Your task to perform on an android device: toggle javascript in the chrome app Image 0: 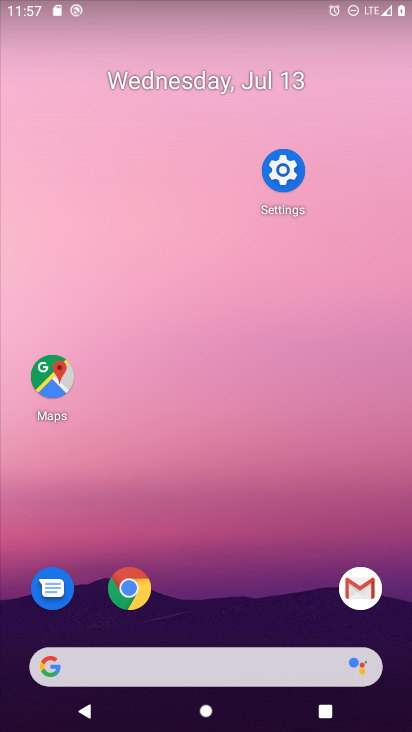
Step 0: drag from (229, 618) to (181, 140)
Your task to perform on an android device: toggle javascript in the chrome app Image 1: 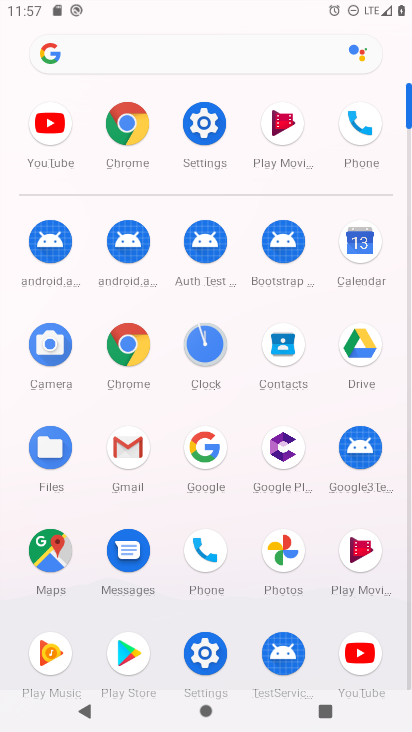
Step 1: click (130, 343)
Your task to perform on an android device: toggle javascript in the chrome app Image 2: 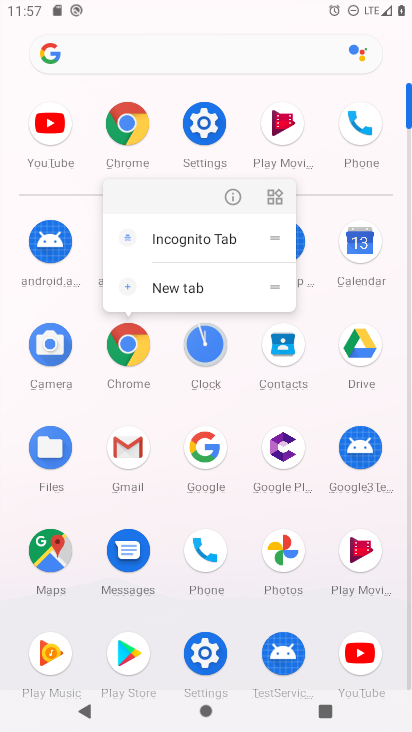
Step 2: click (123, 354)
Your task to perform on an android device: toggle javascript in the chrome app Image 3: 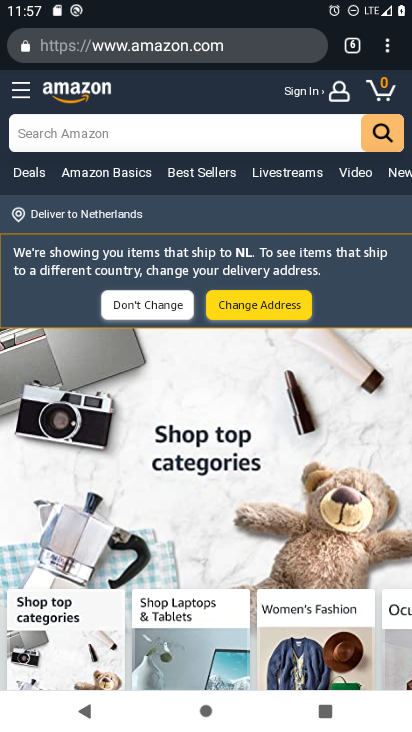
Step 3: click (379, 57)
Your task to perform on an android device: toggle javascript in the chrome app Image 4: 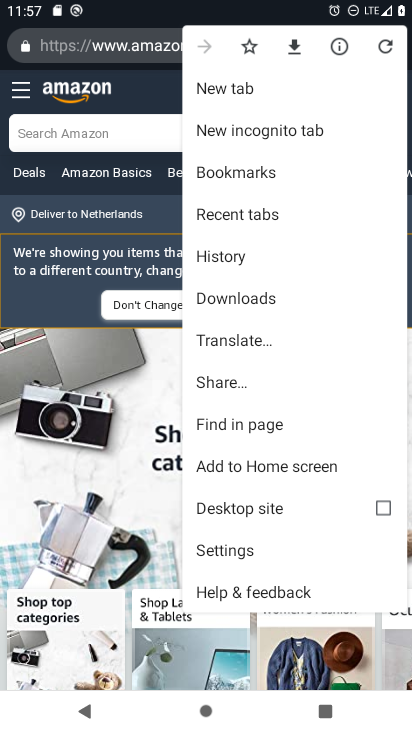
Step 4: click (222, 547)
Your task to perform on an android device: toggle javascript in the chrome app Image 5: 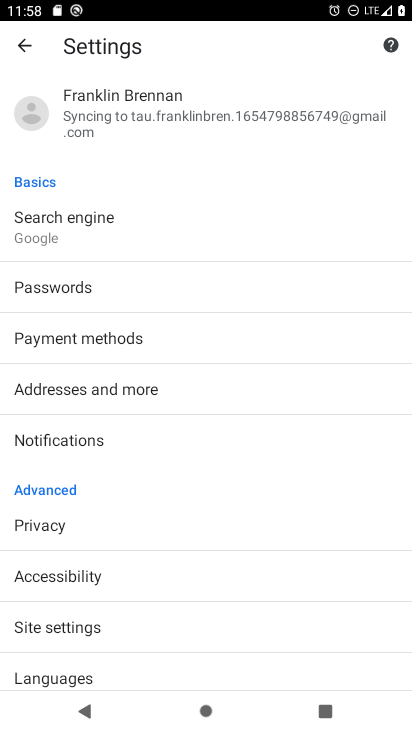
Step 5: click (42, 621)
Your task to perform on an android device: toggle javascript in the chrome app Image 6: 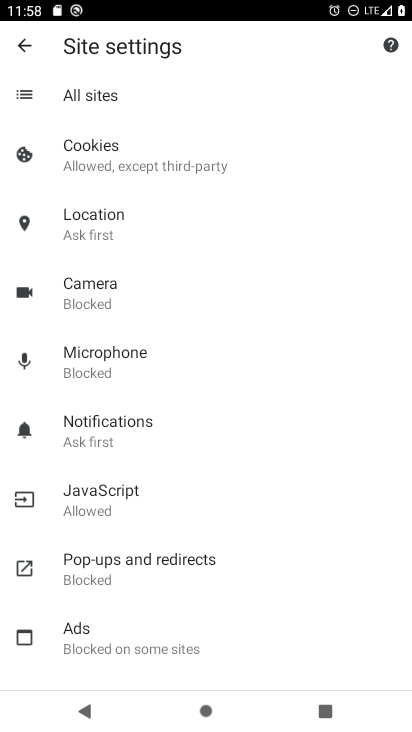
Step 6: click (103, 496)
Your task to perform on an android device: toggle javascript in the chrome app Image 7: 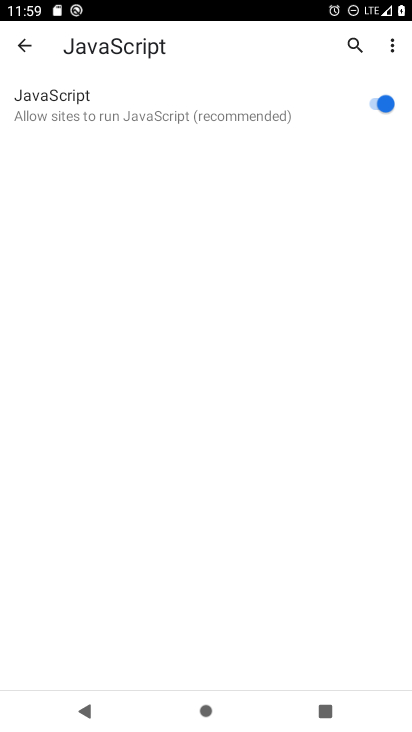
Step 7: task complete